Your task to perform on an android device: delete browsing data in the chrome app Image 0: 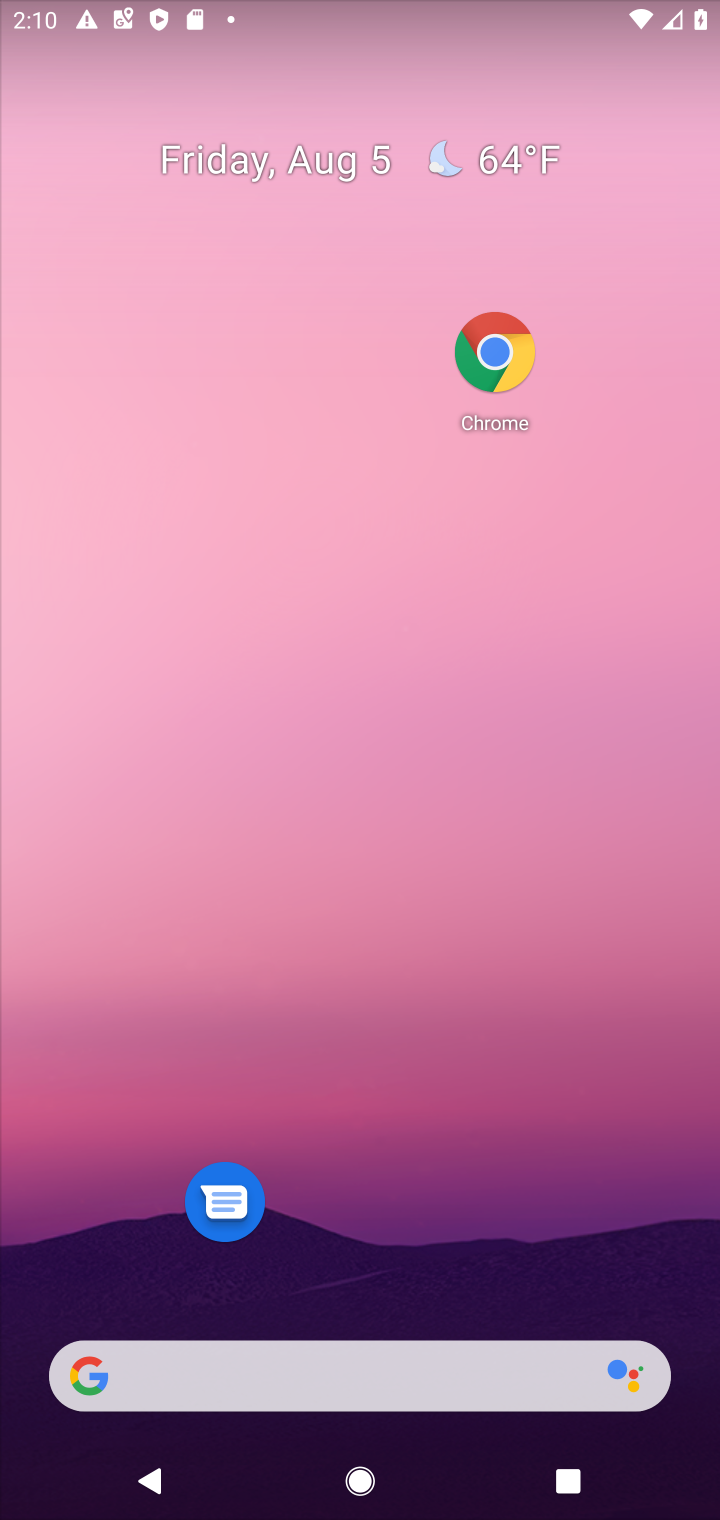
Step 0: press home button
Your task to perform on an android device: delete browsing data in the chrome app Image 1: 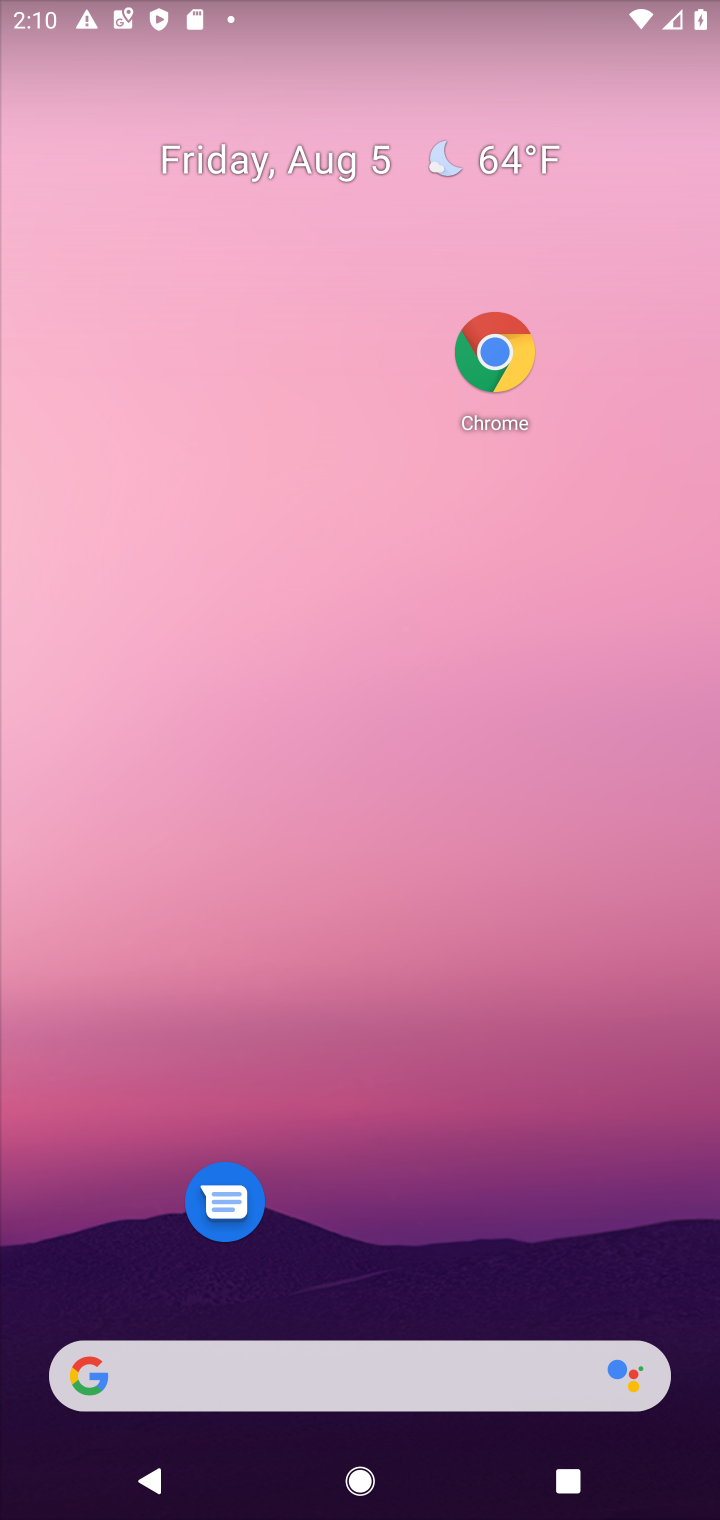
Step 1: drag from (477, 991) to (443, 276)
Your task to perform on an android device: delete browsing data in the chrome app Image 2: 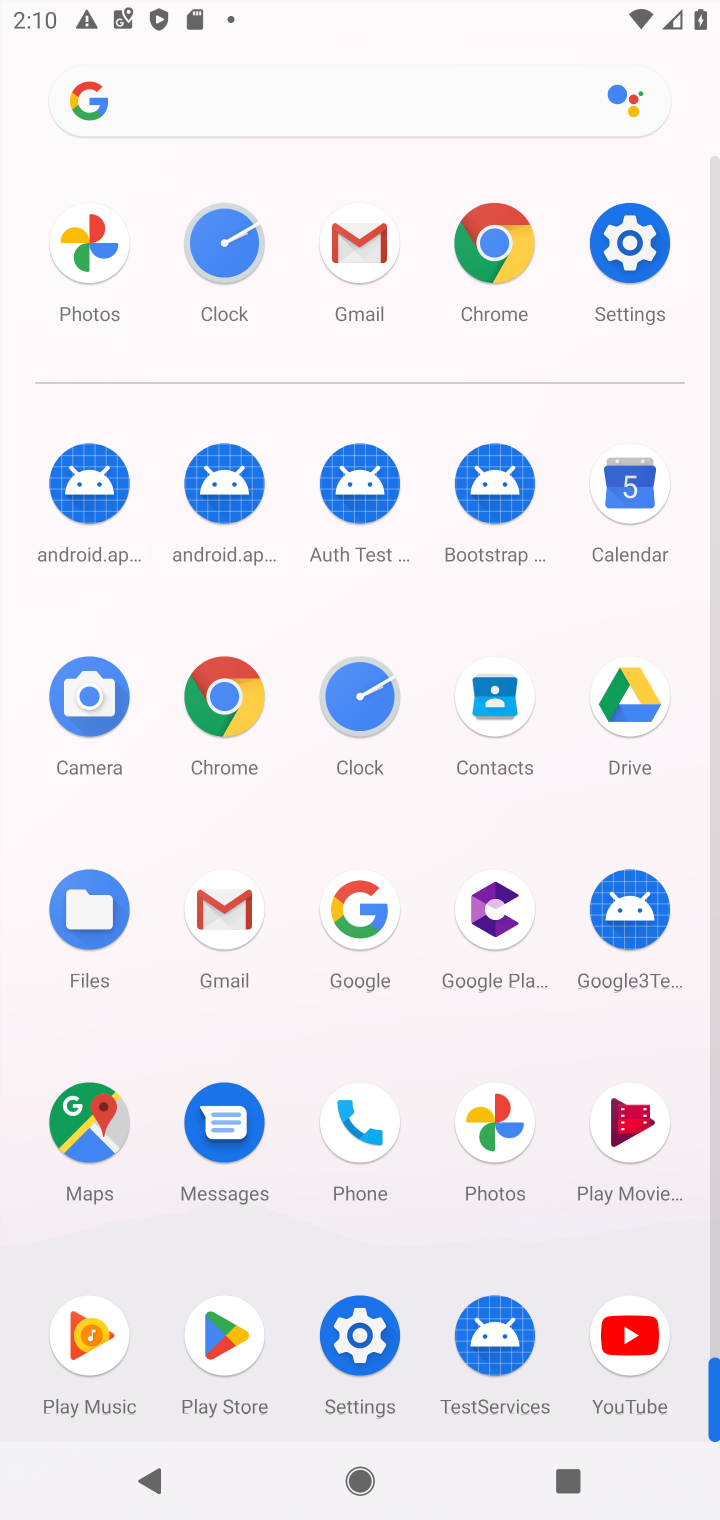
Step 2: click (222, 704)
Your task to perform on an android device: delete browsing data in the chrome app Image 3: 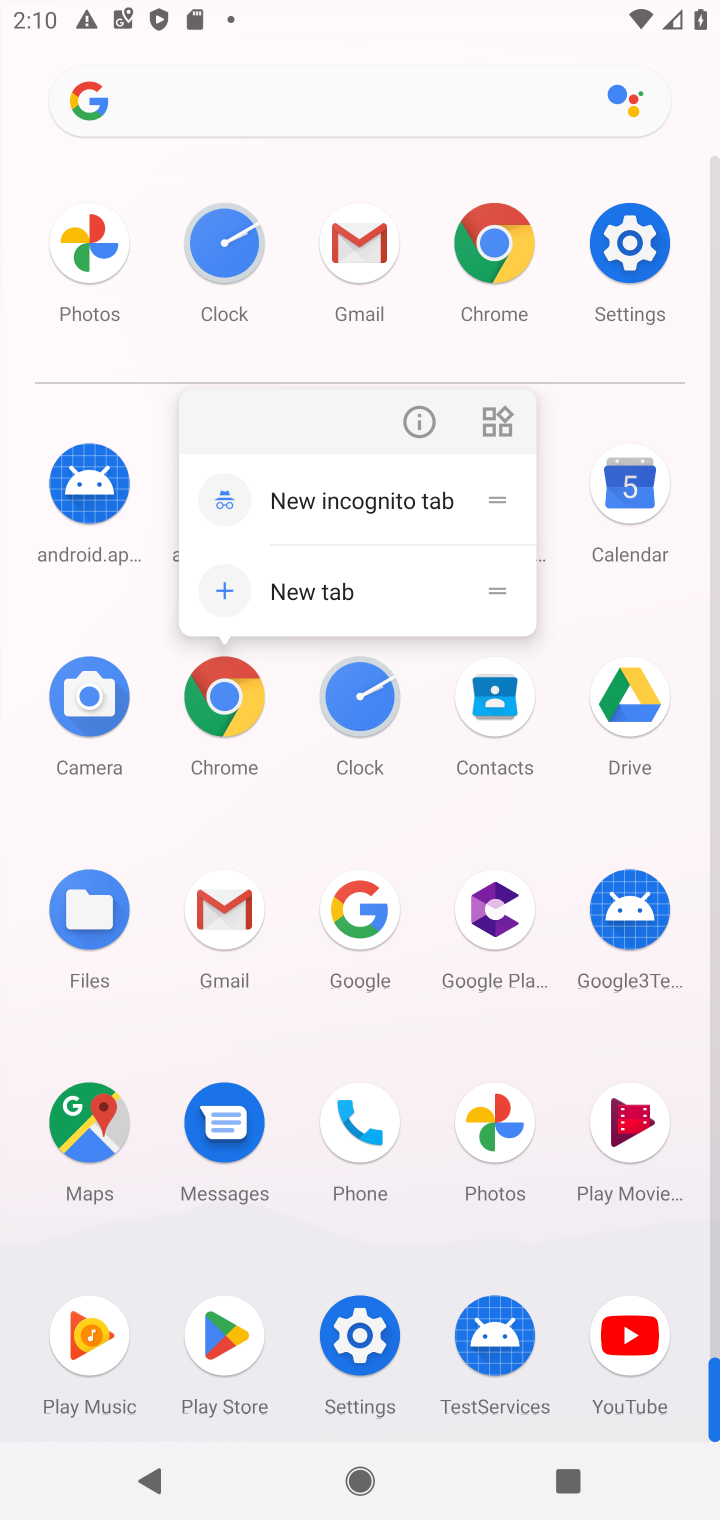
Step 3: click (225, 704)
Your task to perform on an android device: delete browsing data in the chrome app Image 4: 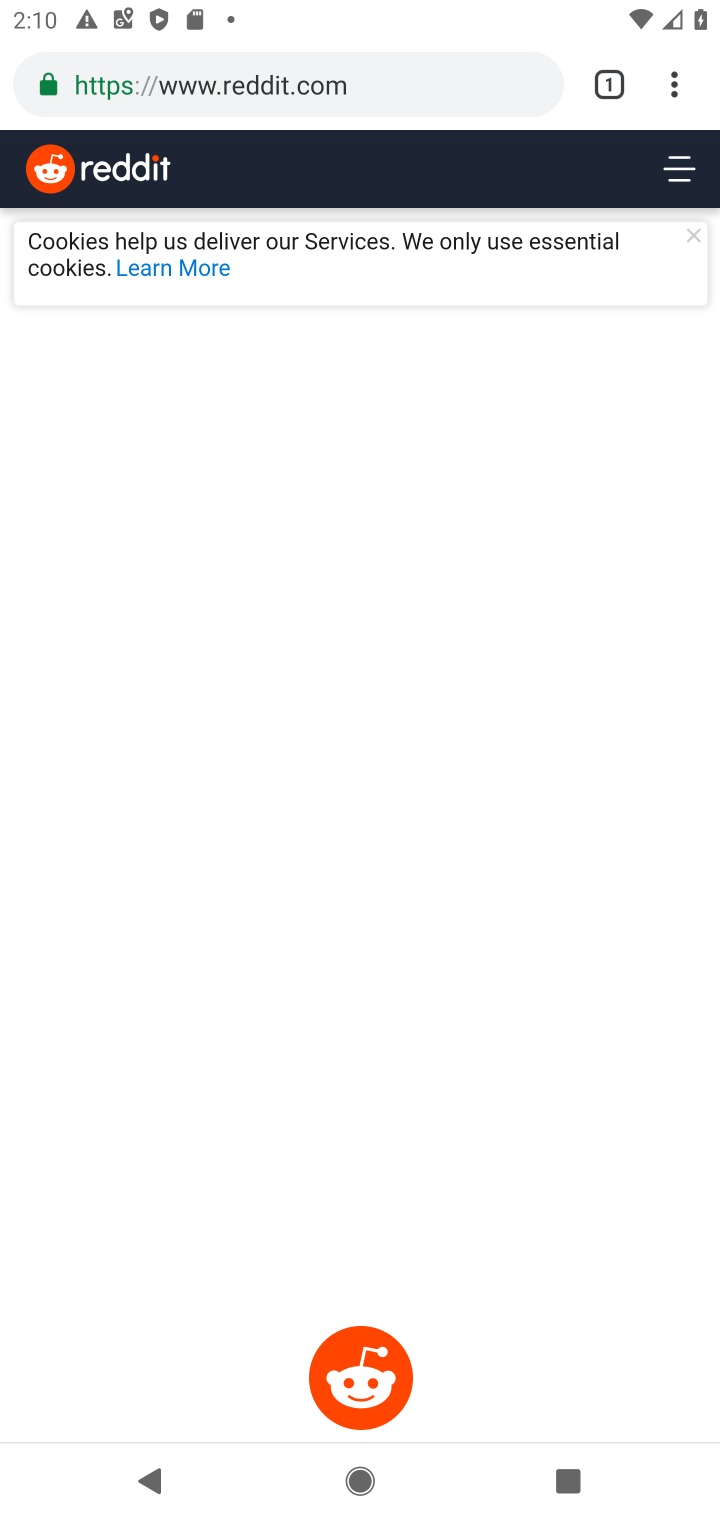
Step 4: drag from (681, 76) to (429, 477)
Your task to perform on an android device: delete browsing data in the chrome app Image 5: 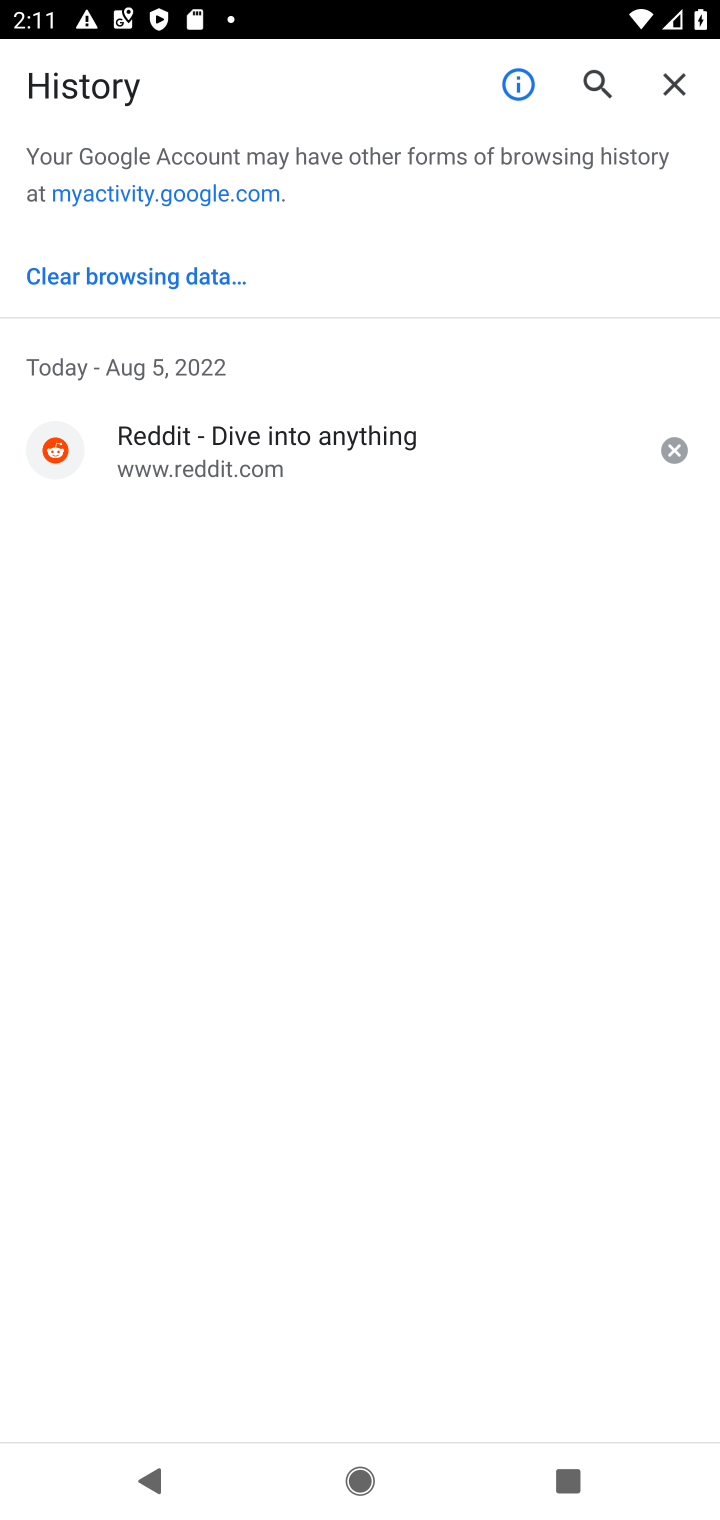
Step 5: click (185, 278)
Your task to perform on an android device: delete browsing data in the chrome app Image 6: 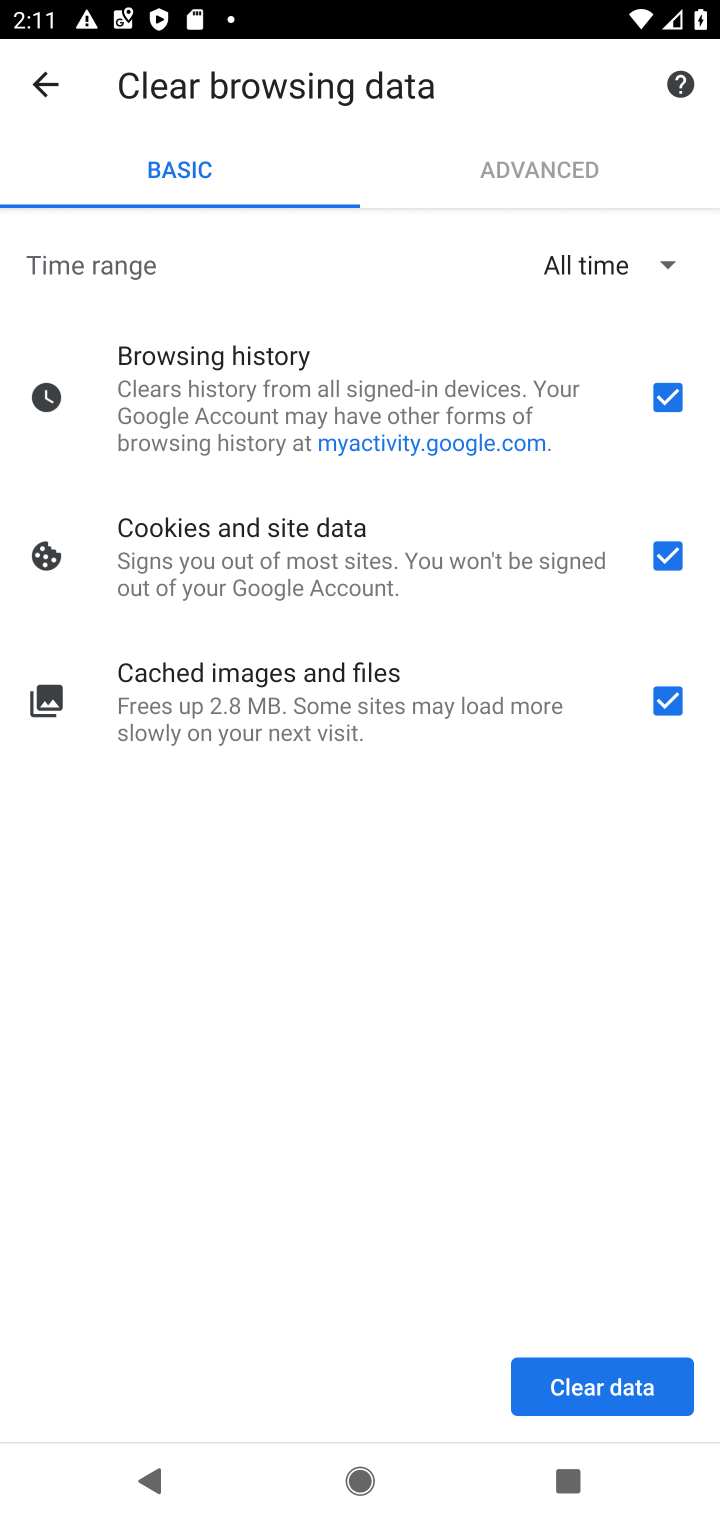
Step 6: click (641, 1386)
Your task to perform on an android device: delete browsing data in the chrome app Image 7: 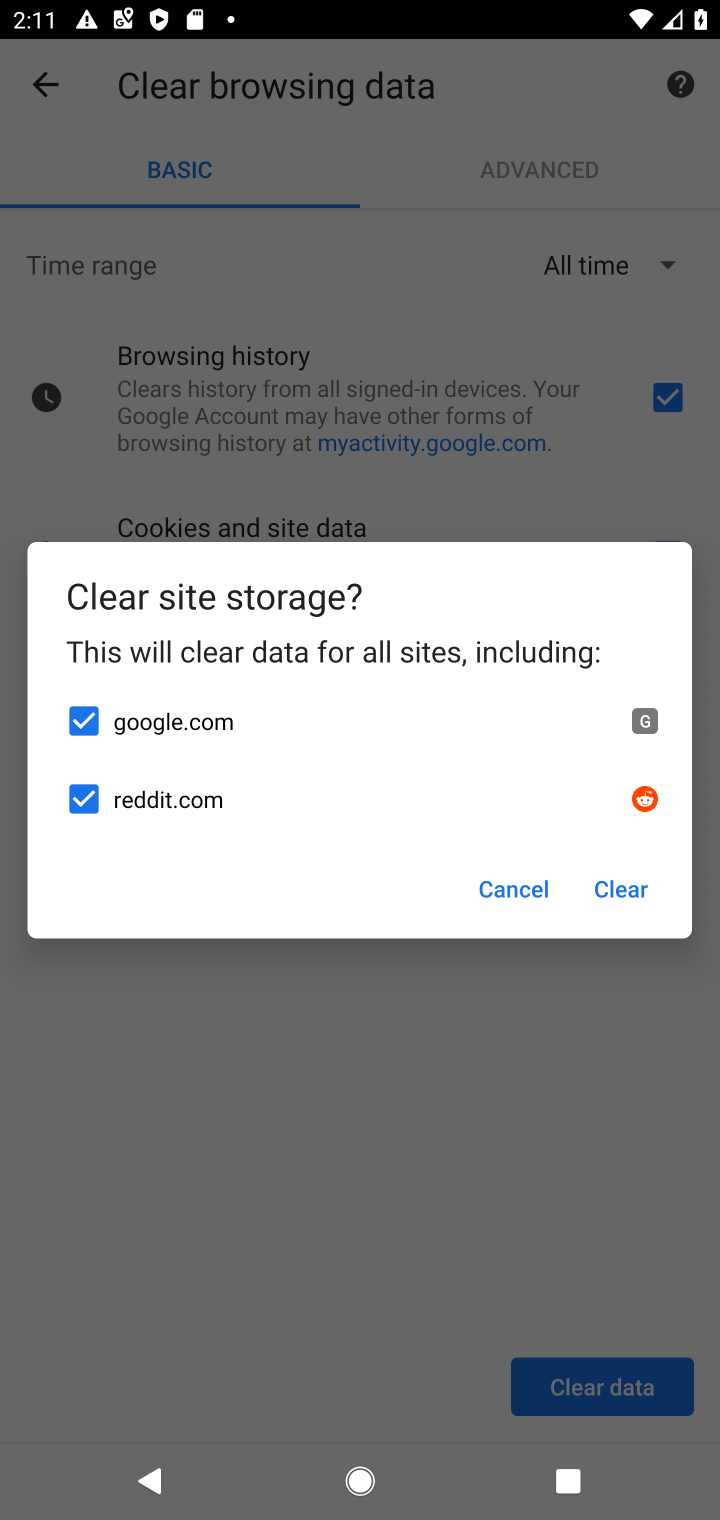
Step 7: click (621, 894)
Your task to perform on an android device: delete browsing data in the chrome app Image 8: 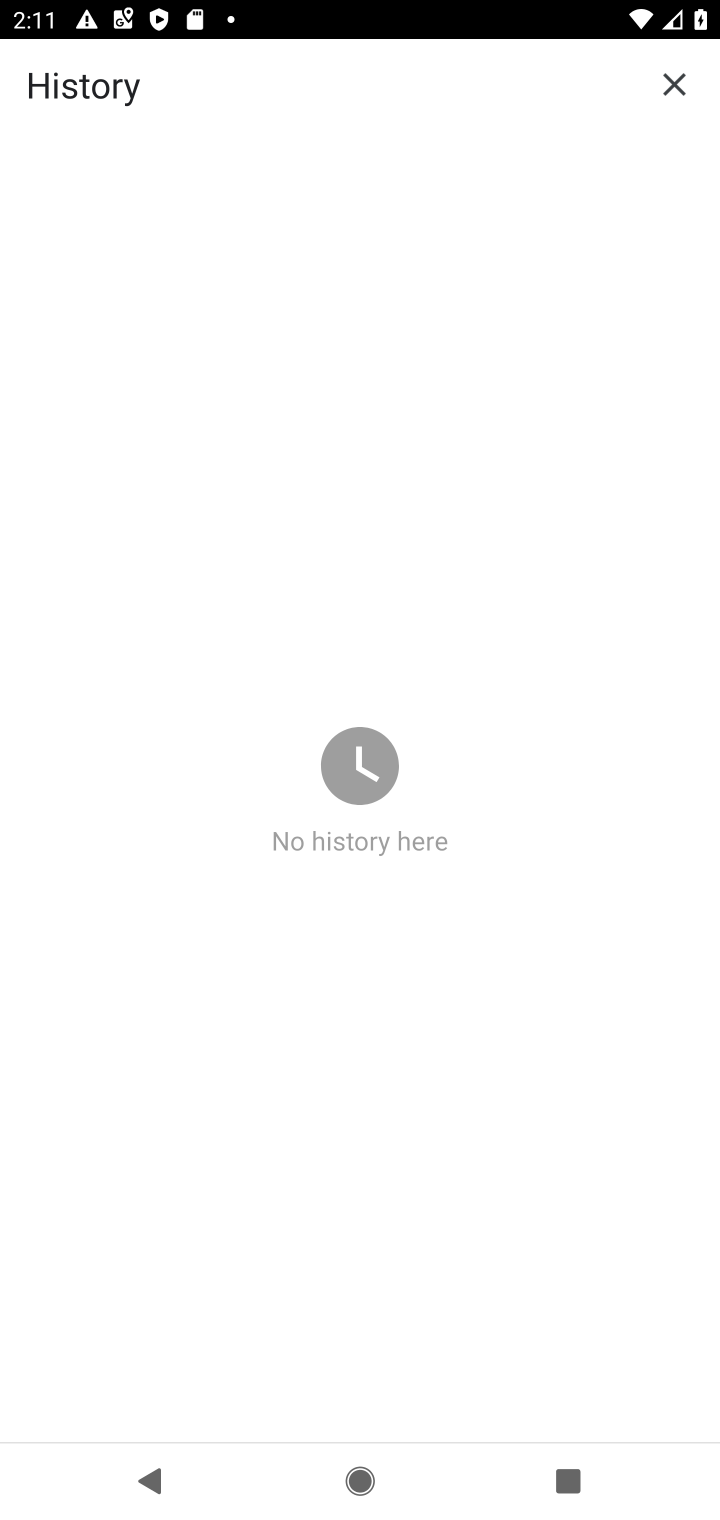
Step 8: task complete